Your task to perform on an android device: Do I have any events this weekend? Image 0: 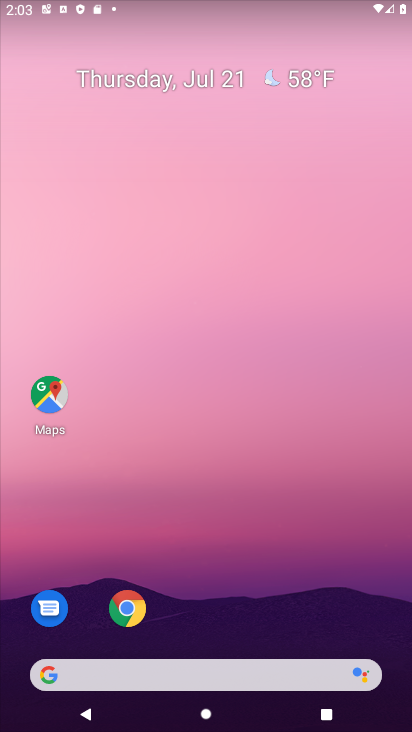
Step 0: drag from (345, 630) to (217, 8)
Your task to perform on an android device: Do I have any events this weekend? Image 1: 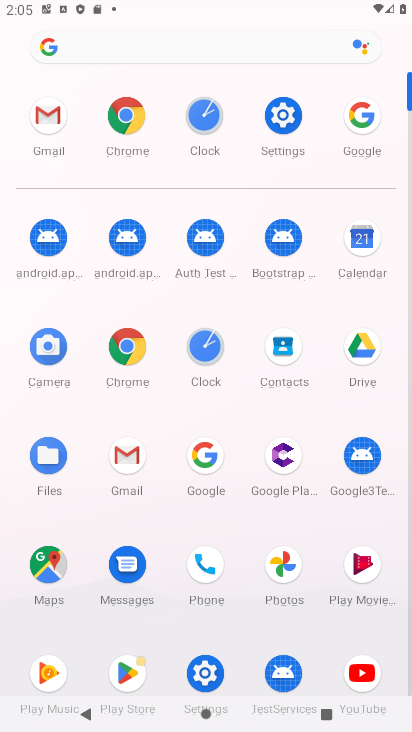
Step 1: click (350, 262)
Your task to perform on an android device: Do I have any events this weekend? Image 2: 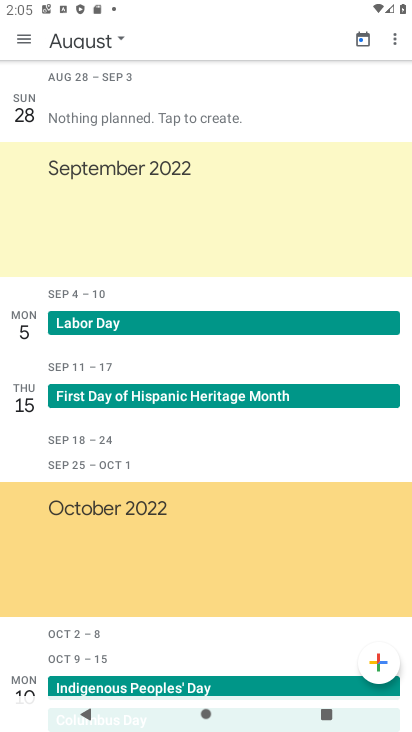
Step 2: task complete